Your task to perform on an android device: Search for vegetarian restaurants on Maps Image 0: 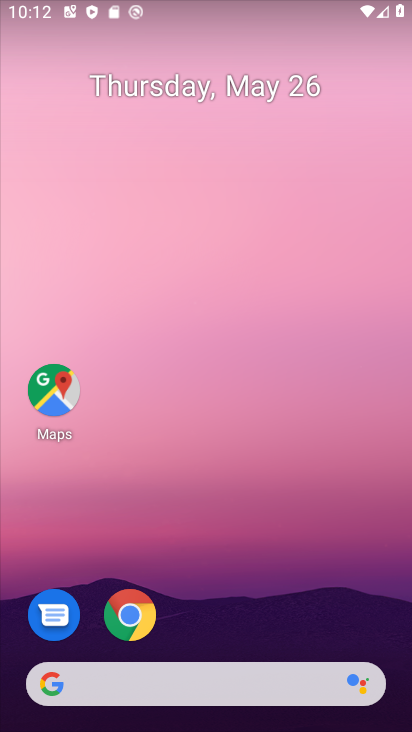
Step 0: drag from (311, 702) to (365, 14)
Your task to perform on an android device: Search for vegetarian restaurants on Maps Image 1: 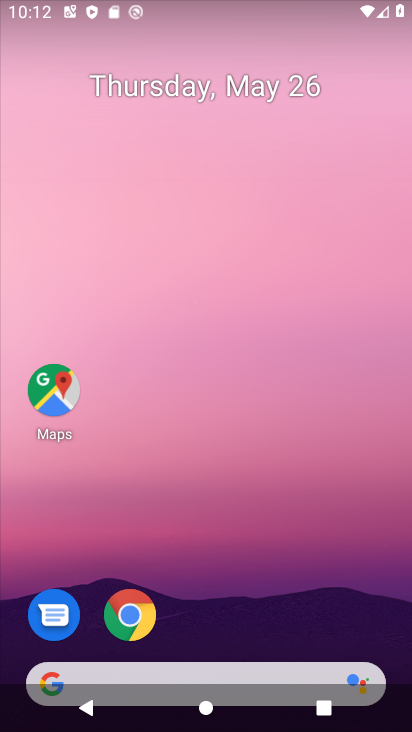
Step 1: drag from (225, 674) to (296, 52)
Your task to perform on an android device: Search for vegetarian restaurants on Maps Image 2: 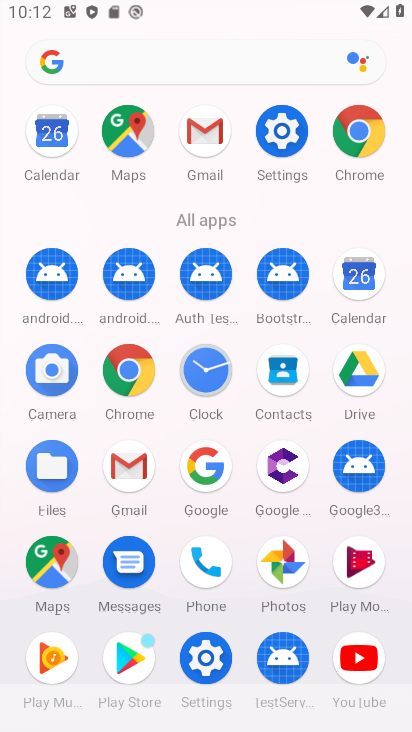
Step 2: click (48, 550)
Your task to perform on an android device: Search for vegetarian restaurants on Maps Image 3: 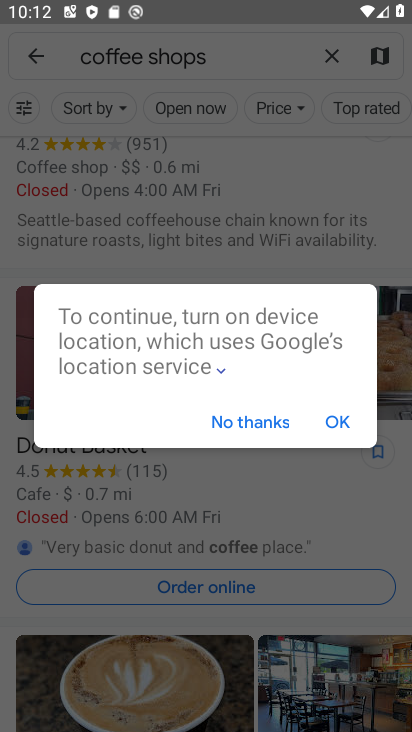
Step 3: click (267, 424)
Your task to perform on an android device: Search for vegetarian restaurants on Maps Image 4: 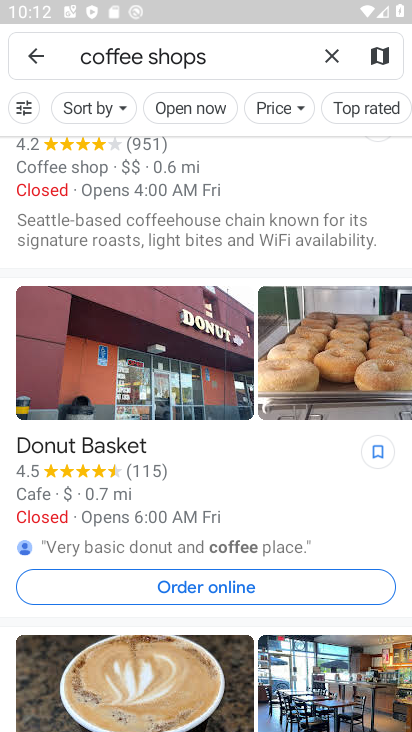
Step 4: click (332, 57)
Your task to perform on an android device: Search for vegetarian restaurants on Maps Image 5: 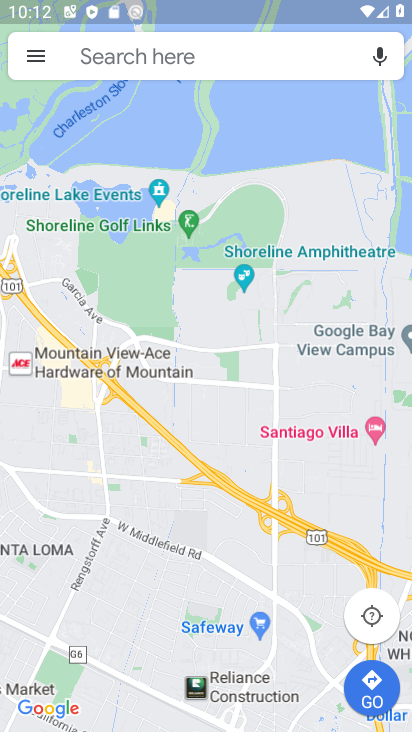
Step 5: click (262, 51)
Your task to perform on an android device: Search for vegetarian restaurants on Maps Image 6: 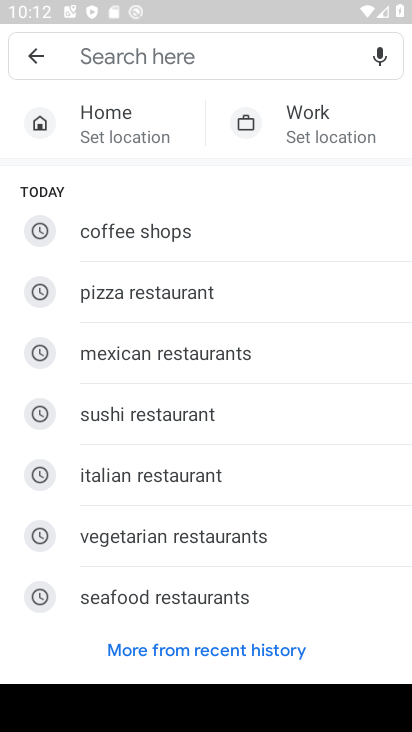
Step 6: click (293, 550)
Your task to perform on an android device: Search for vegetarian restaurants on Maps Image 7: 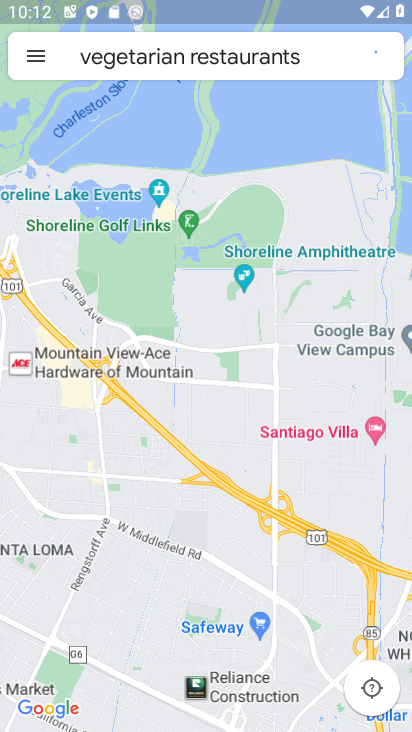
Step 7: task complete